Your task to perform on an android device: turn off translation in the chrome app Image 0: 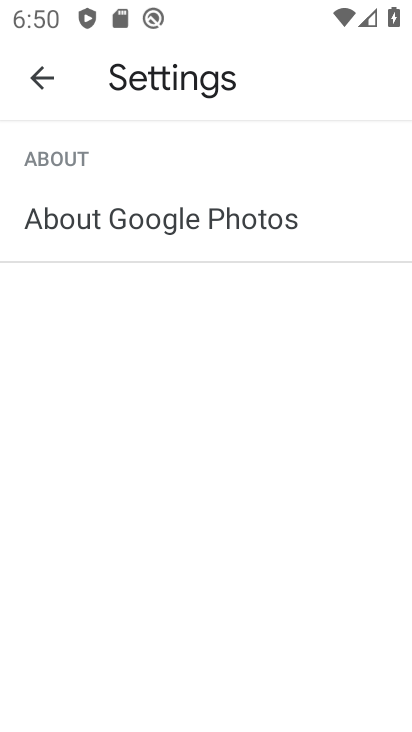
Step 0: drag from (280, 441) to (172, 60)
Your task to perform on an android device: turn off translation in the chrome app Image 1: 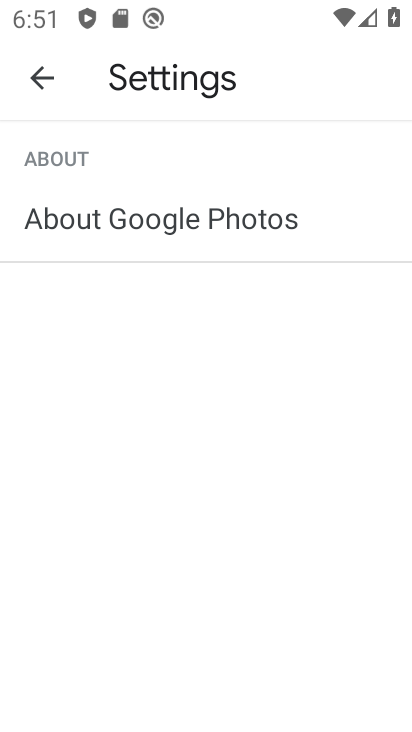
Step 1: press home button
Your task to perform on an android device: turn off translation in the chrome app Image 2: 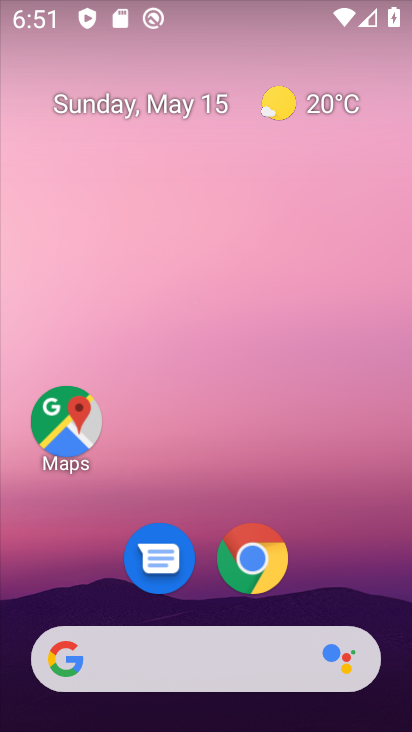
Step 2: drag from (347, 525) to (220, 57)
Your task to perform on an android device: turn off translation in the chrome app Image 3: 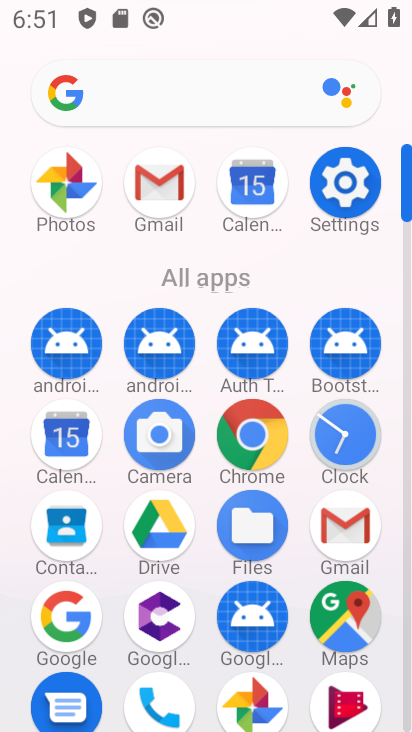
Step 3: click (250, 425)
Your task to perform on an android device: turn off translation in the chrome app Image 4: 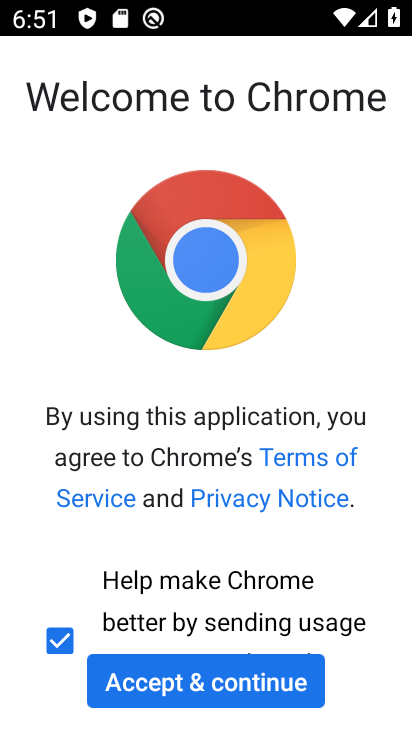
Step 4: click (216, 694)
Your task to perform on an android device: turn off translation in the chrome app Image 5: 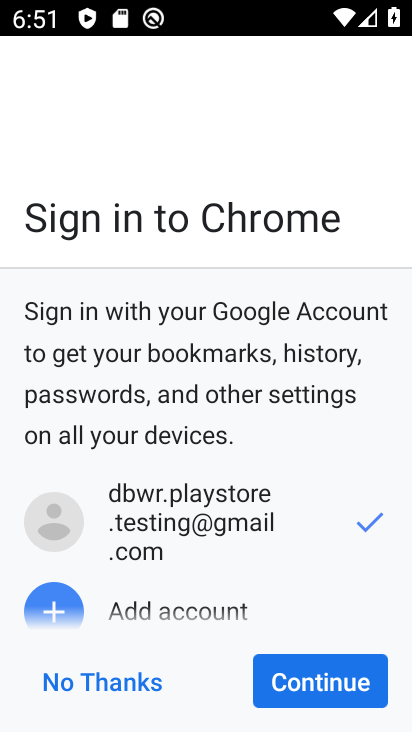
Step 5: click (339, 679)
Your task to perform on an android device: turn off translation in the chrome app Image 6: 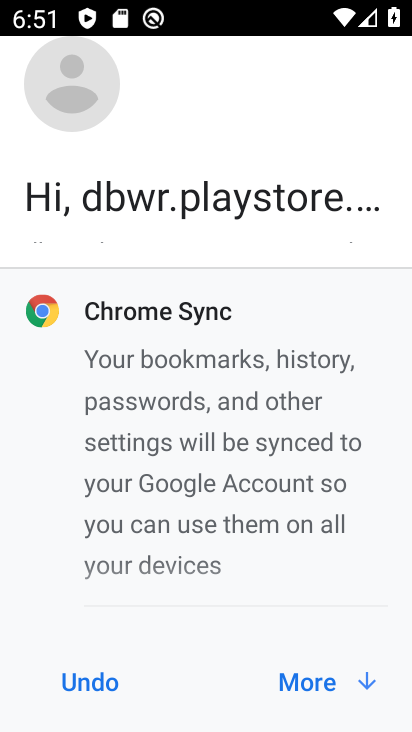
Step 6: click (339, 679)
Your task to perform on an android device: turn off translation in the chrome app Image 7: 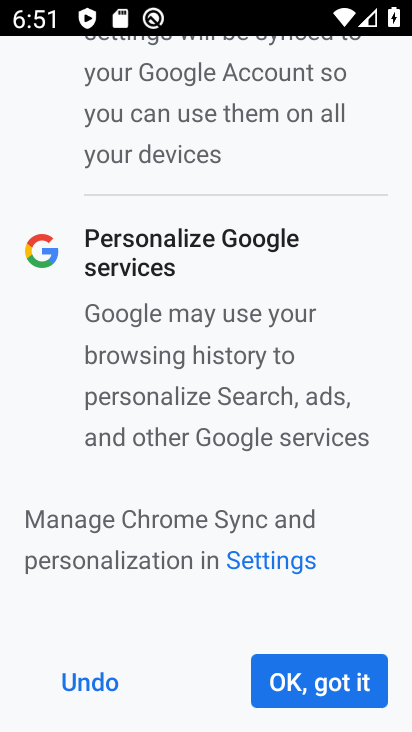
Step 7: click (330, 683)
Your task to perform on an android device: turn off translation in the chrome app Image 8: 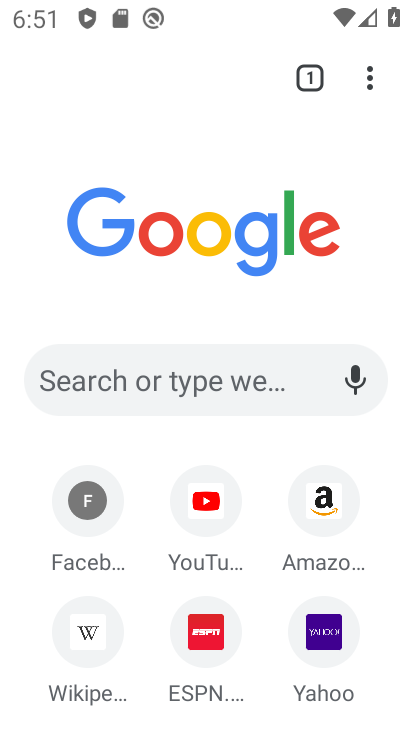
Step 8: click (369, 81)
Your task to perform on an android device: turn off translation in the chrome app Image 9: 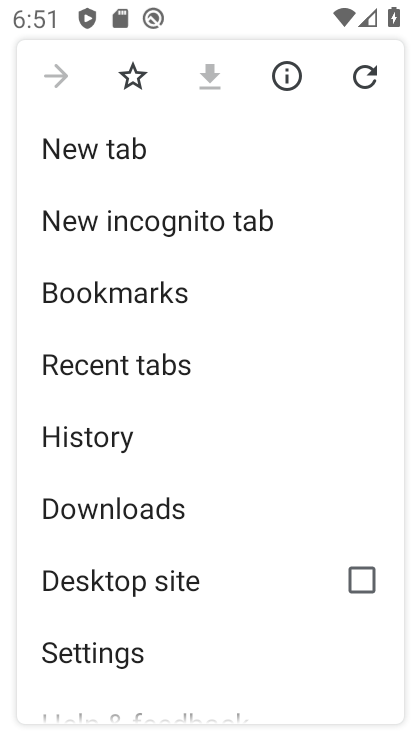
Step 9: click (120, 650)
Your task to perform on an android device: turn off translation in the chrome app Image 10: 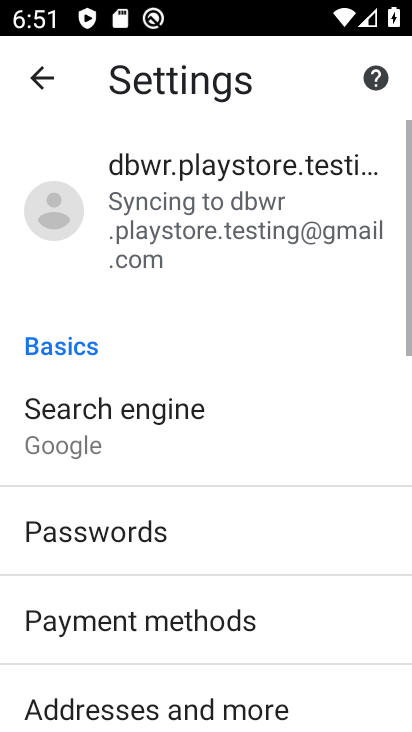
Step 10: drag from (226, 548) to (166, 263)
Your task to perform on an android device: turn off translation in the chrome app Image 11: 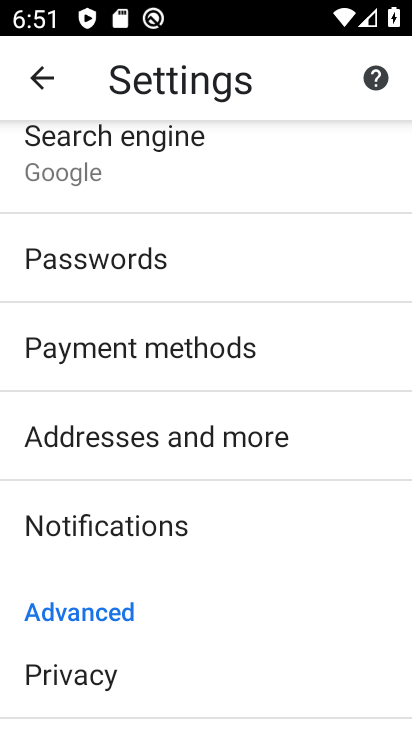
Step 11: drag from (185, 544) to (99, 293)
Your task to perform on an android device: turn off translation in the chrome app Image 12: 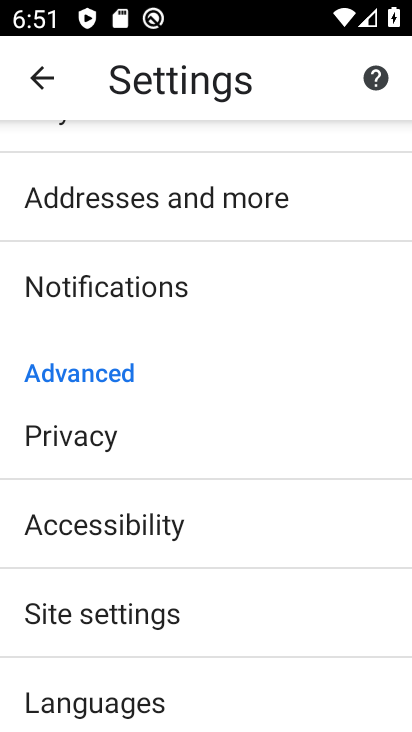
Step 12: click (96, 705)
Your task to perform on an android device: turn off translation in the chrome app Image 13: 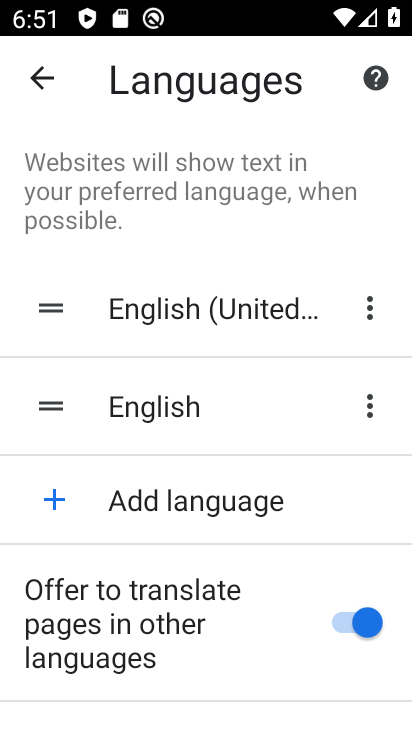
Step 13: click (371, 633)
Your task to perform on an android device: turn off translation in the chrome app Image 14: 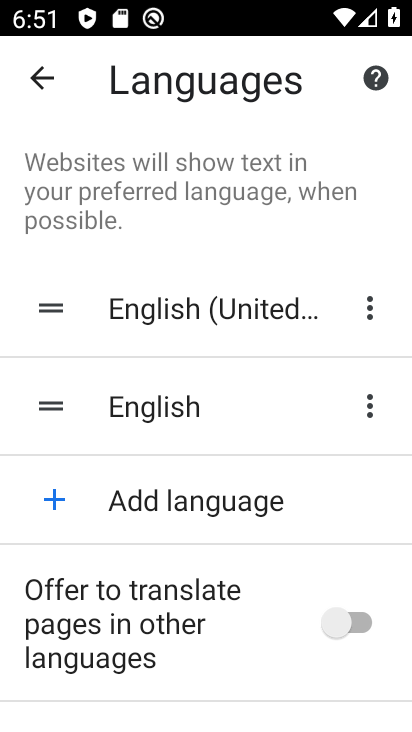
Step 14: task complete